Your task to perform on an android device: turn on javascript in the chrome app Image 0: 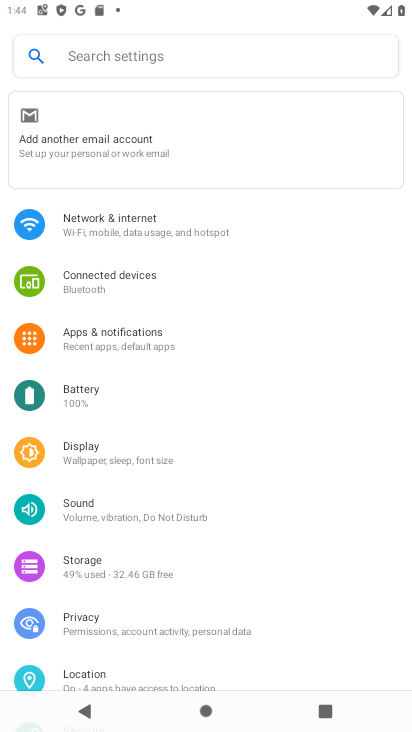
Step 0: drag from (172, 588) to (278, 51)
Your task to perform on an android device: turn on javascript in the chrome app Image 1: 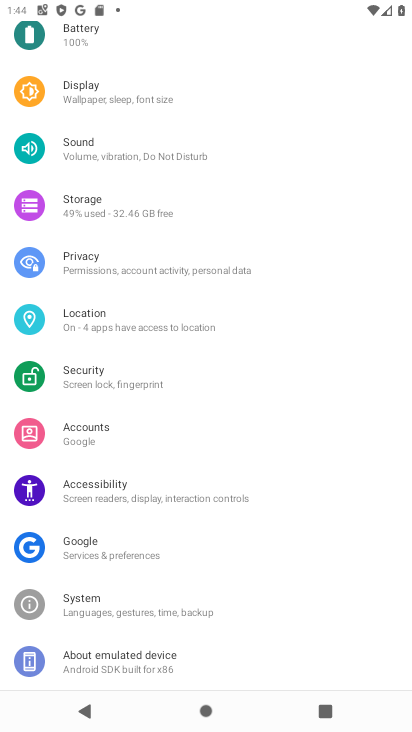
Step 1: drag from (179, 492) to (193, 219)
Your task to perform on an android device: turn on javascript in the chrome app Image 2: 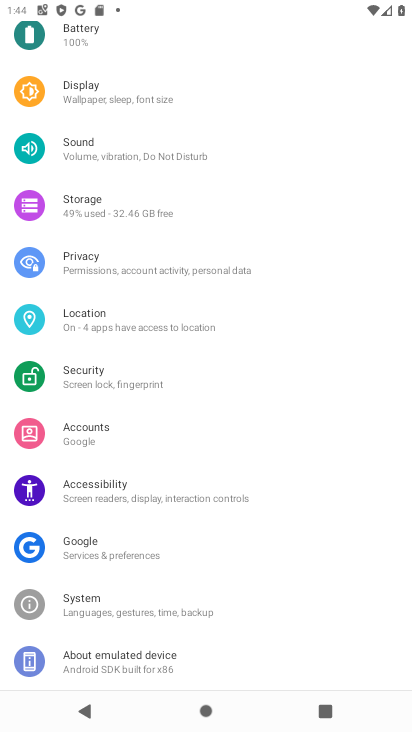
Step 2: press back button
Your task to perform on an android device: turn on javascript in the chrome app Image 3: 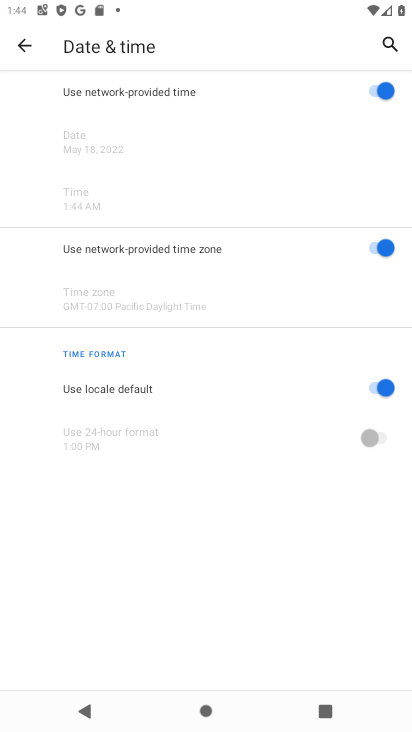
Step 3: press home button
Your task to perform on an android device: turn on javascript in the chrome app Image 4: 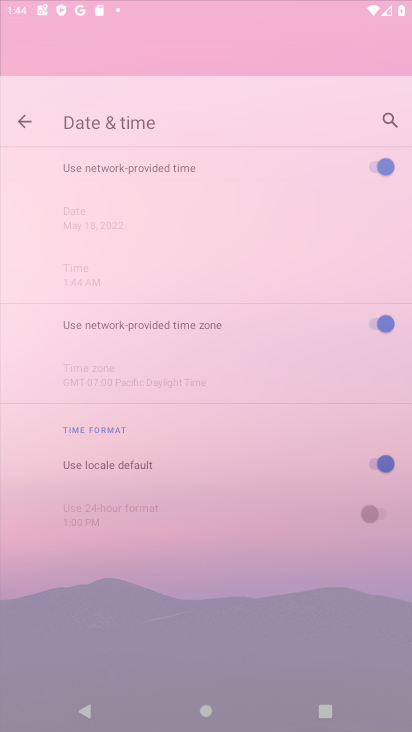
Step 4: drag from (254, 558) to (333, 19)
Your task to perform on an android device: turn on javascript in the chrome app Image 5: 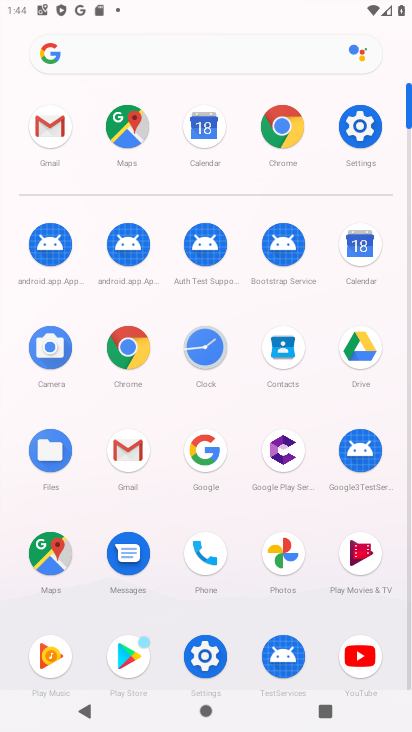
Step 5: click (289, 183)
Your task to perform on an android device: turn on javascript in the chrome app Image 6: 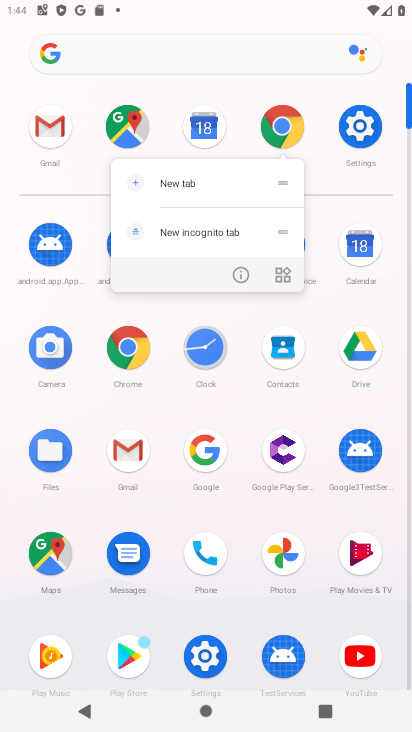
Step 6: click (238, 269)
Your task to perform on an android device: turn on javascript in the chrome app Image 7: 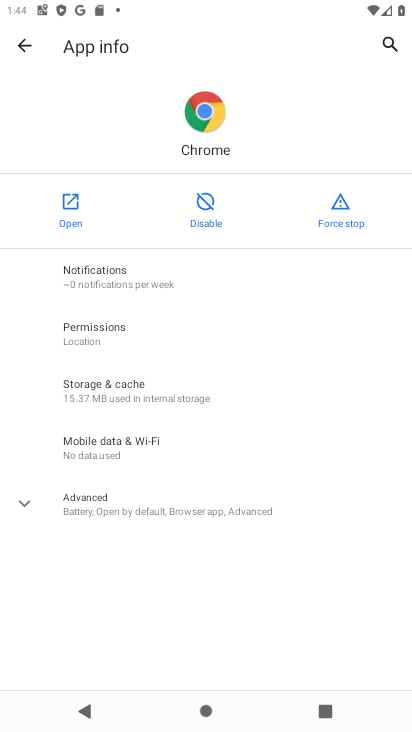
Step 7: click (55, 200)
Your task to perform on an android device: turn on javascript in the chrome app Image 8: 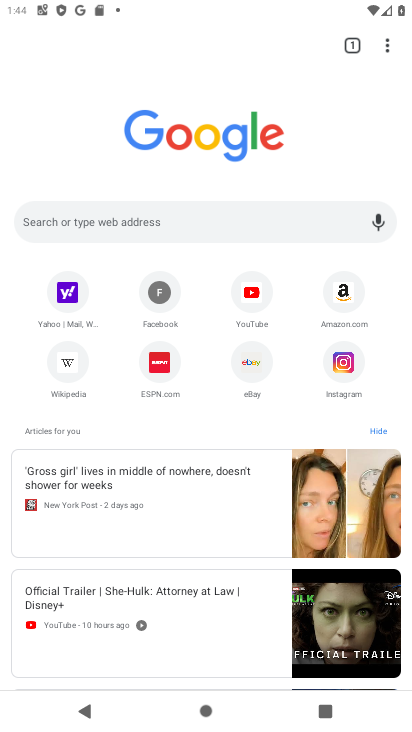
Step 8: click (394, 46)
Your task to perform on an android device: turn on javascript in the chrome app Image 9: 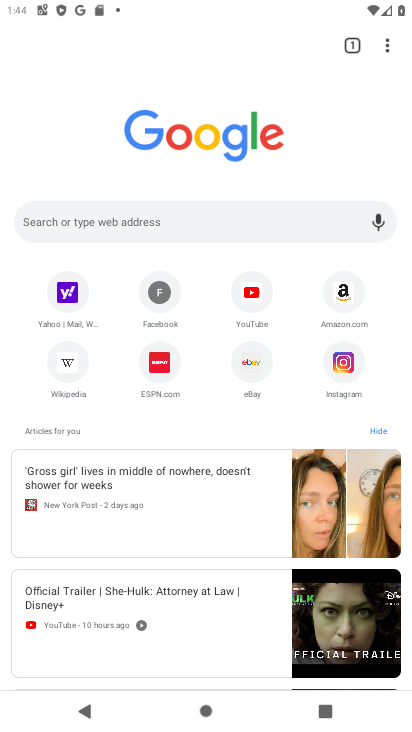
Step 9: click (390, 42)
Your task to perform on an android device: turn on javascript in the chrome app Image 10: 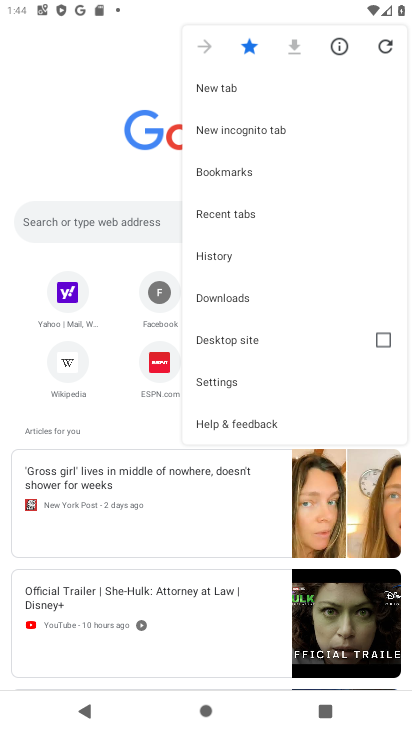
Step 10: click (239, 385)
Your task to perform on an android device: turn on javascript in the chrome app Image 11: 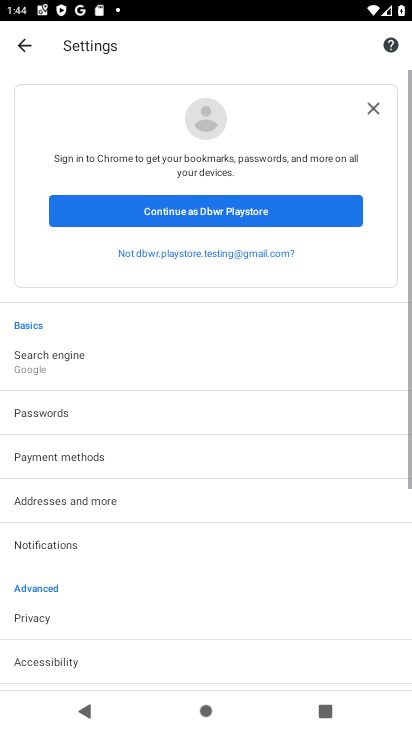
Step 11: drag from (229, 521) to (262, 147)
Your task to perform on an android device: turn on javascript in the chrome app Image 12: 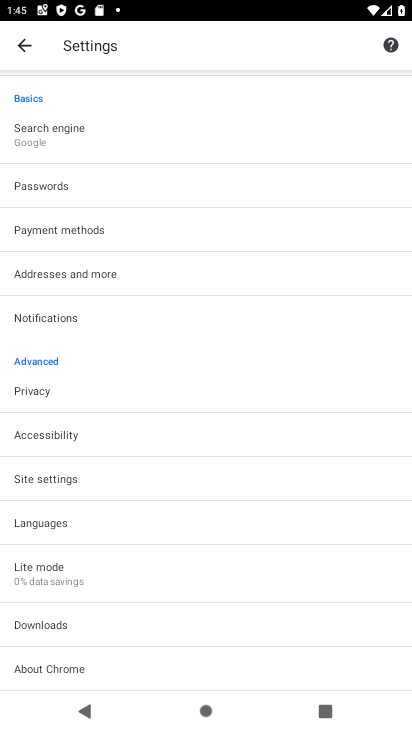
Step 12: click (91, 474)
Your task to perform on an android device: turn on javascript in the chrome app Image 13: 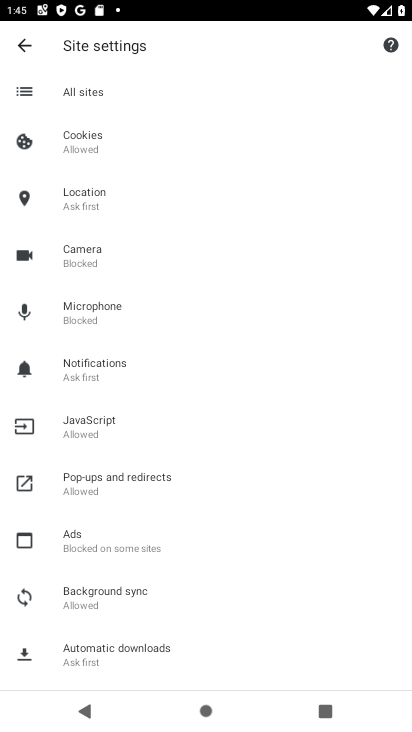
Step 13: click (124, 422)
Your task to perform on an android device: turn on javascript in the chrome app Image 14: 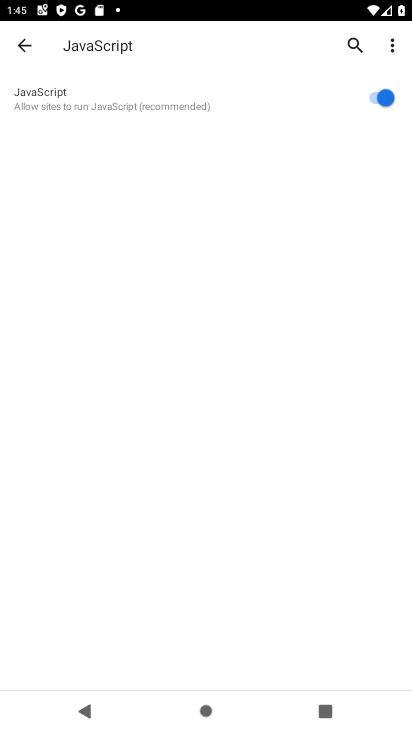
Step 14: task complete